Your task to perform on an android device: View the shopping cart on amazon.com. Add "macbook pro 13 inch" to the cart on amazon.com, then select checkout. Image 0: 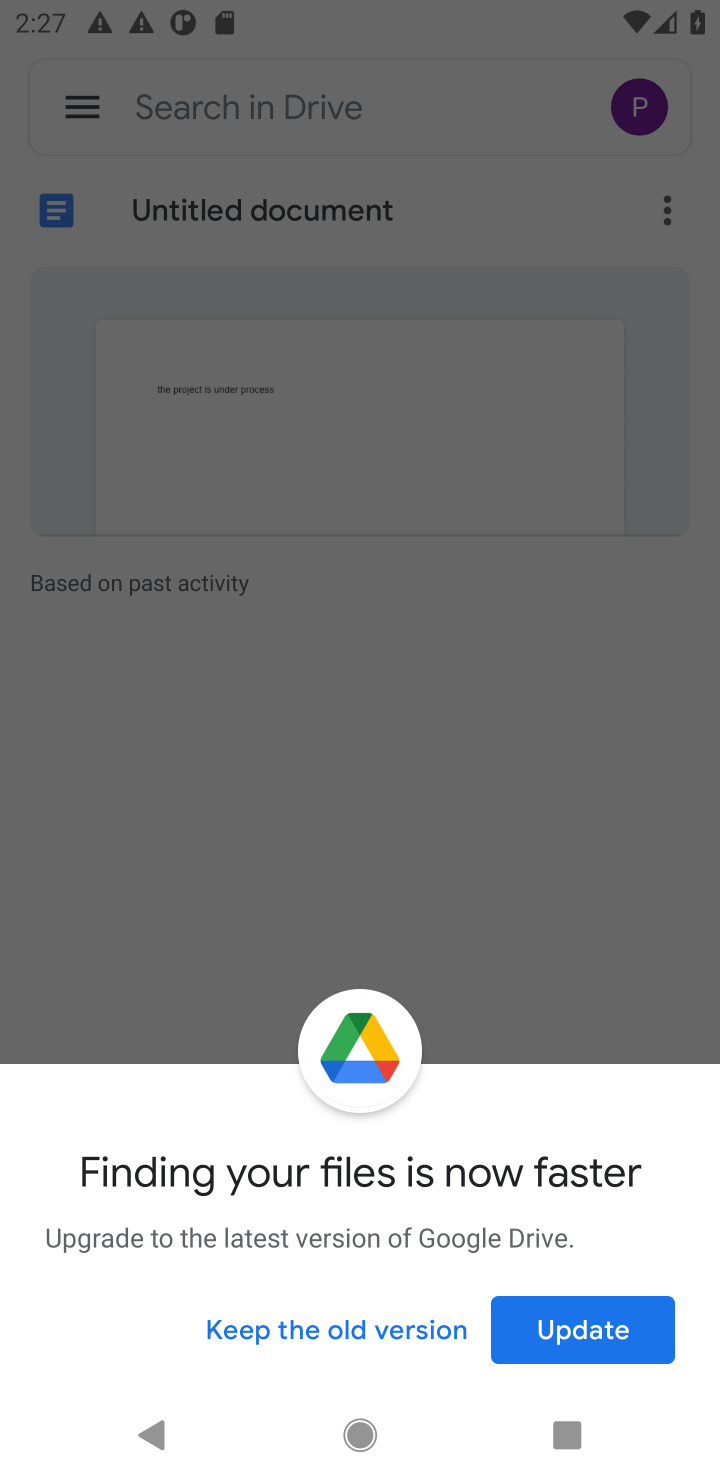
Step 0: press home button
Your task to perform on an android device: View the shopping cart on amazon.com. Add "macbook pro 13 inch" to the cart on amazon.com, then select checkout. Image 1: 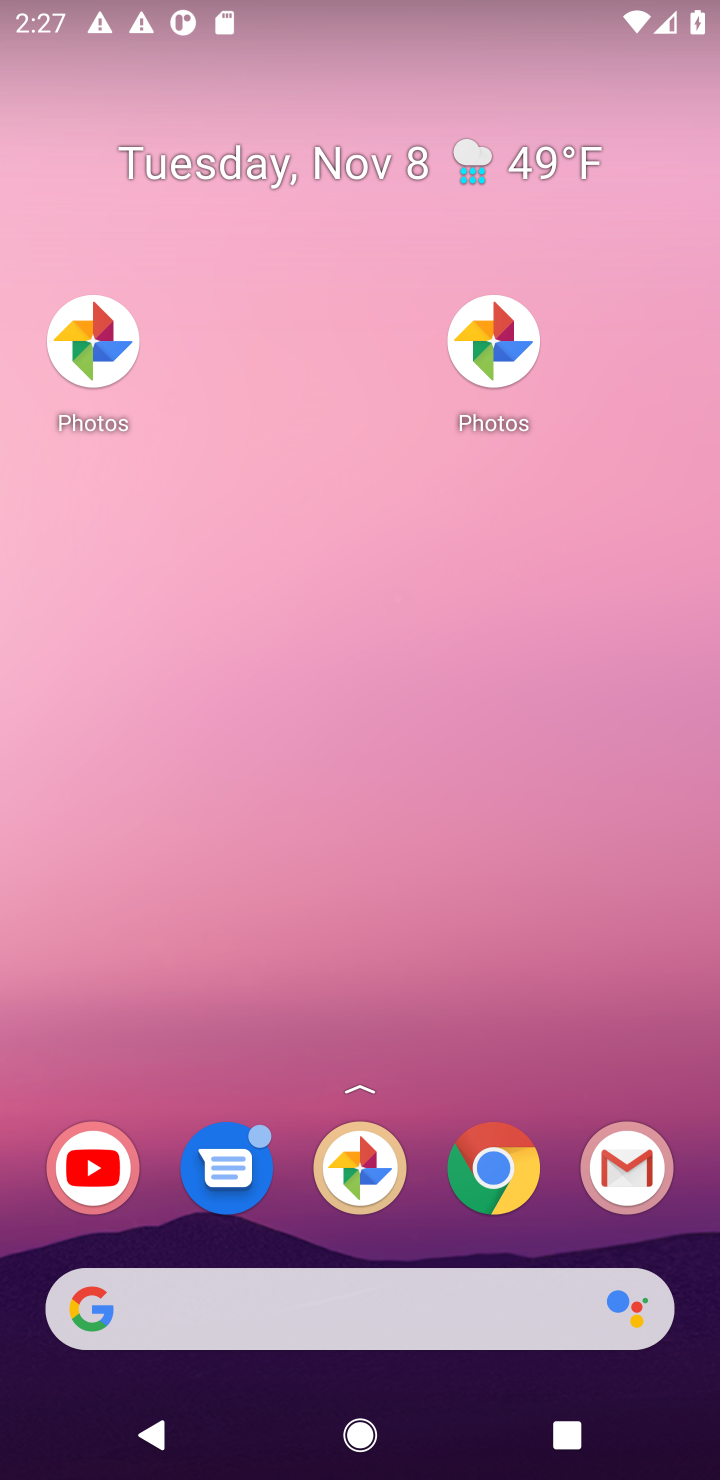
Step 1: drag from (104, 1264) to (290, 561)
Your task to perform on an android device: View the shopping cart on amazon.com. Add "macbook pro 13 inch" to the cart on amazon.com, then select checkout. Image 2: 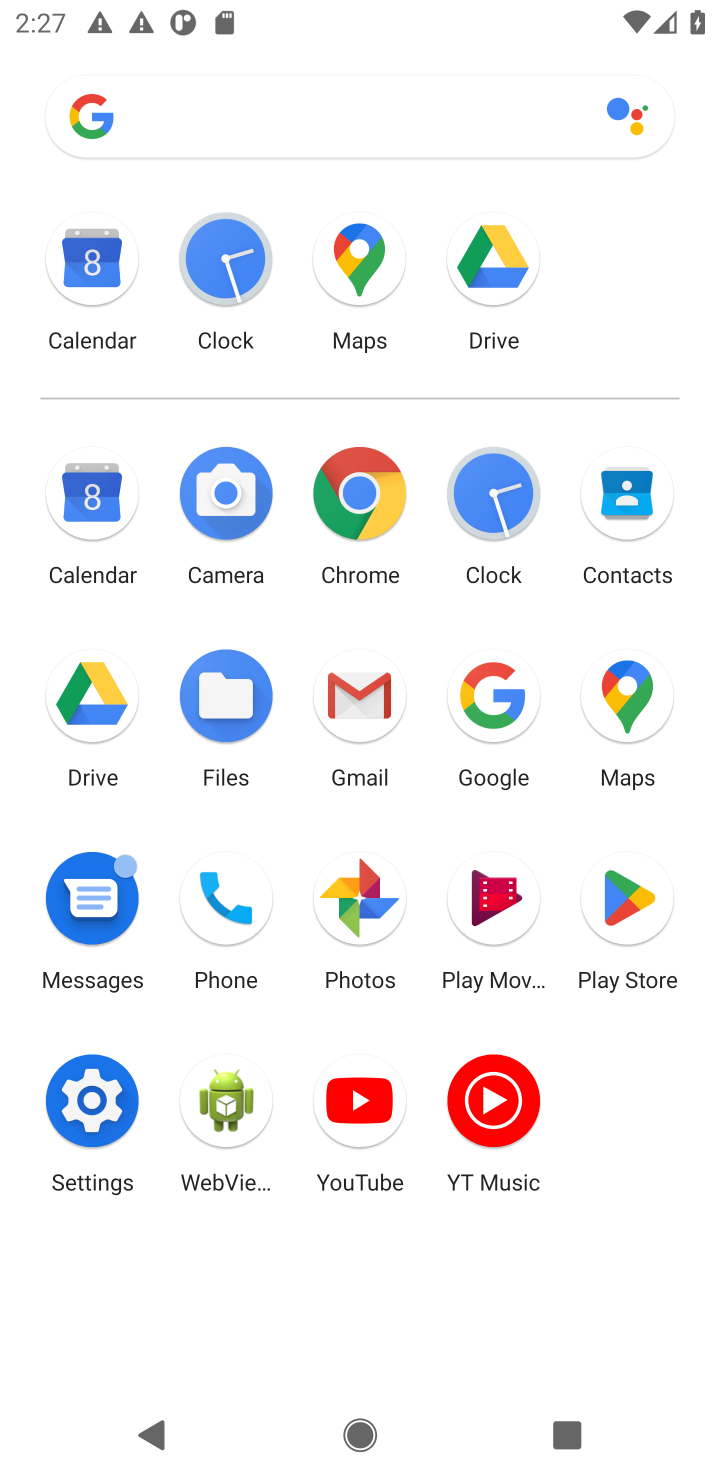
Step 2: click (344, 529)
Your task to perform on an android device: View the shopping cart on amazon.com. Add "macbook pro 13 inch" to the cart on amazon.com, then select checkout. Image 3: 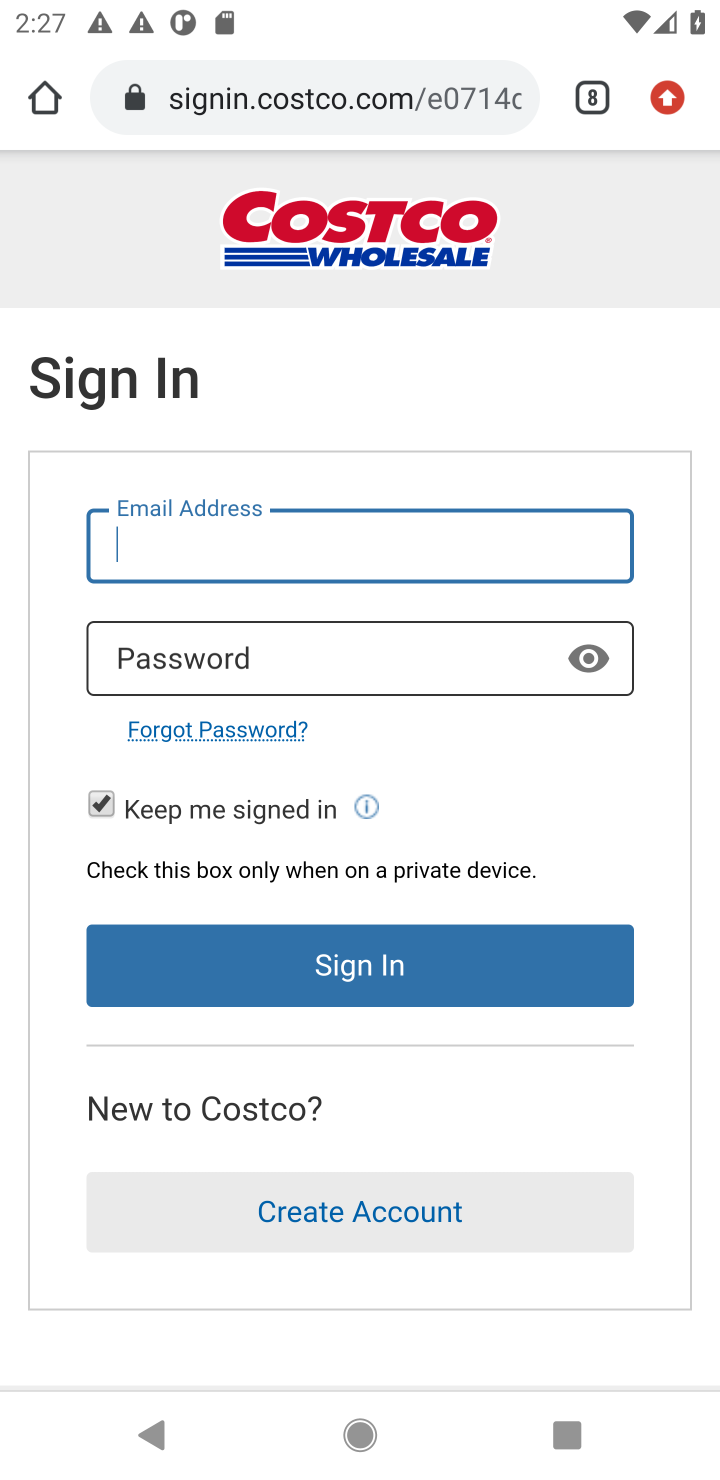
Step 3: click (322, 102)
Your task to perform on an android device: View the shopping cart on amazon.com. Add "macbook pro 13 inch" to the cart on amazon.com, then select checkout. Image 4: 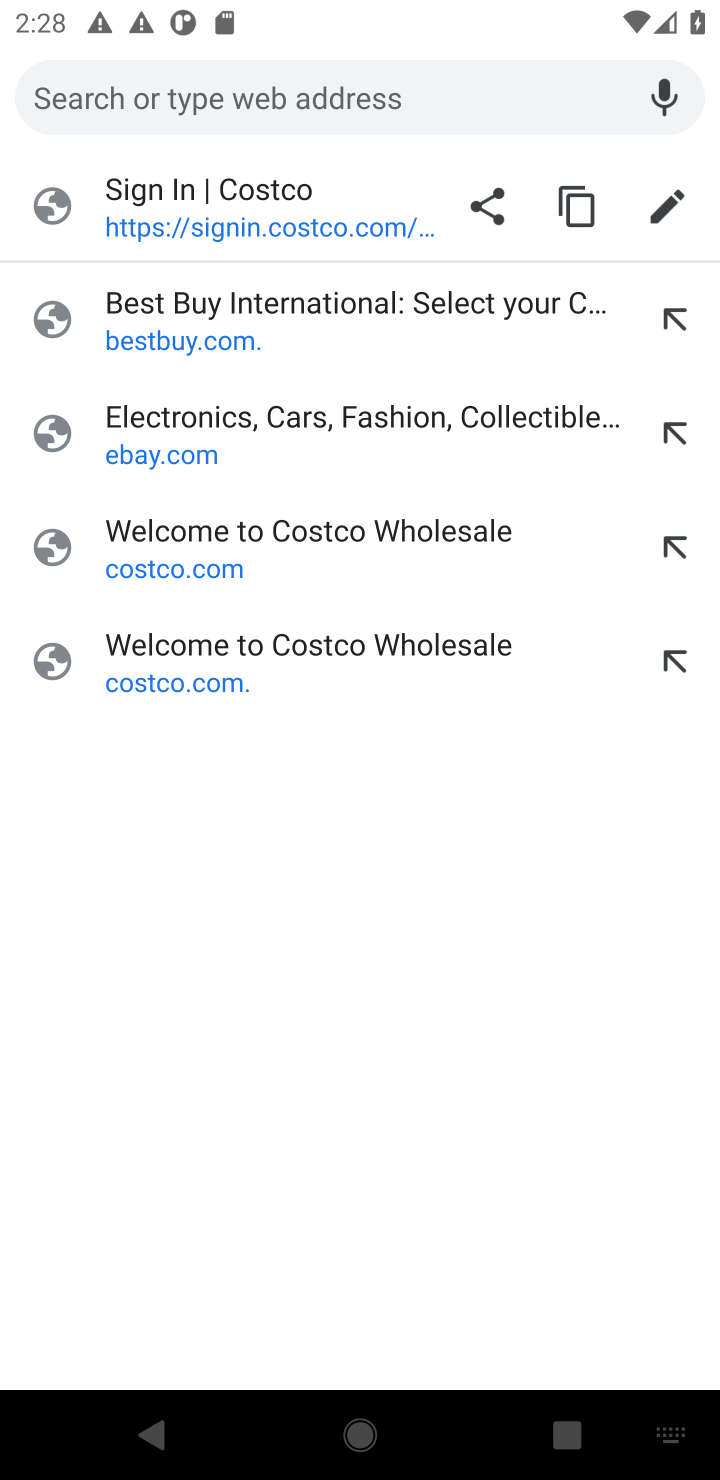
Step 4: type "amazon.com."
Your task to perform on an android device: View the shopping cart on amazon.com. Add "macbook pro 13 inch" to the cart on amazon.com, then select checkout. Image 5: 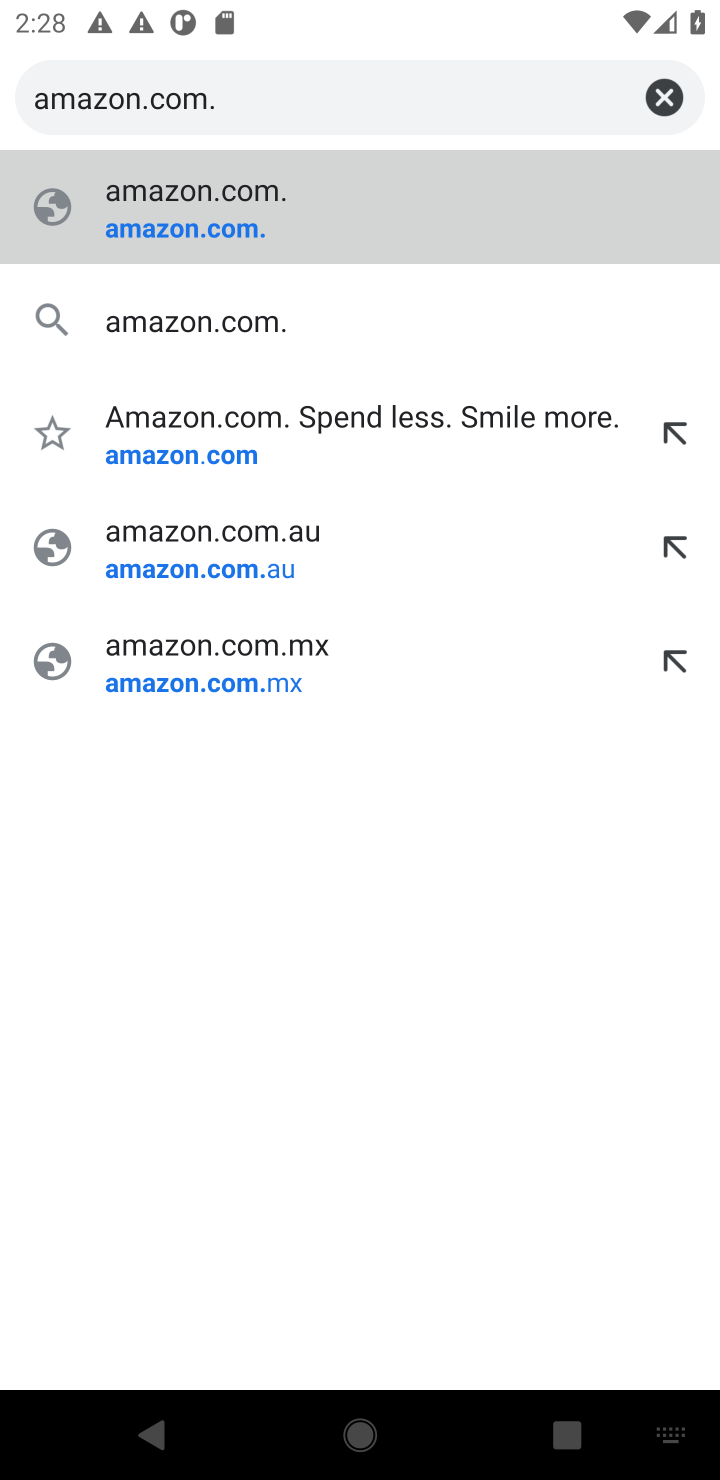
Step 5: press enter
Your task to perform on an android device: View the shopping cart on amazon.com. Add "macbook pro 13 inch" to the cart on amazon.com, then select checkout. Image 6: 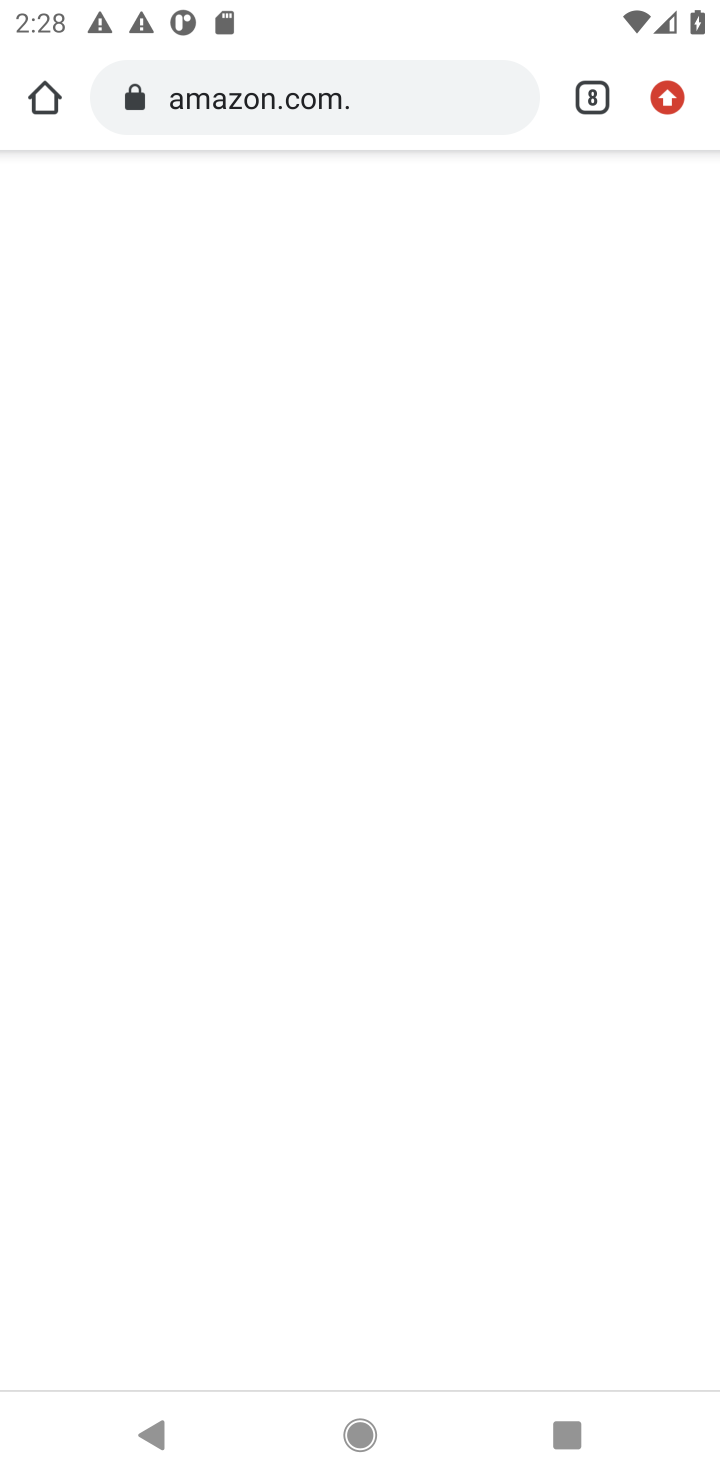
Step 6: press enter
Your task to perform on an android device: View the shopping cart on amazon.com. Add "macbook pro 13 inch" to the cart on amazon.com, then select checkout. Image 7: 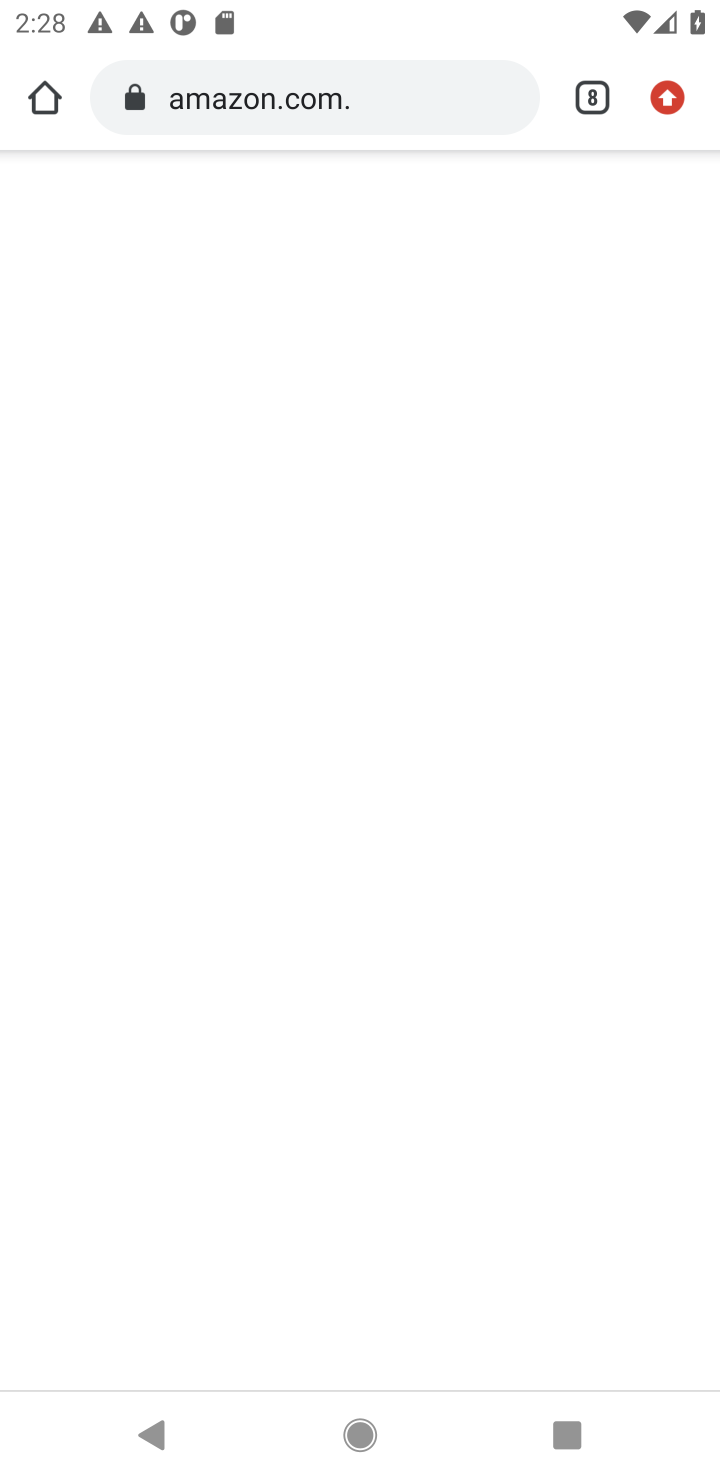
Step 7: task complete